Your task to perform on an android device: toggle notification dots Image 0: 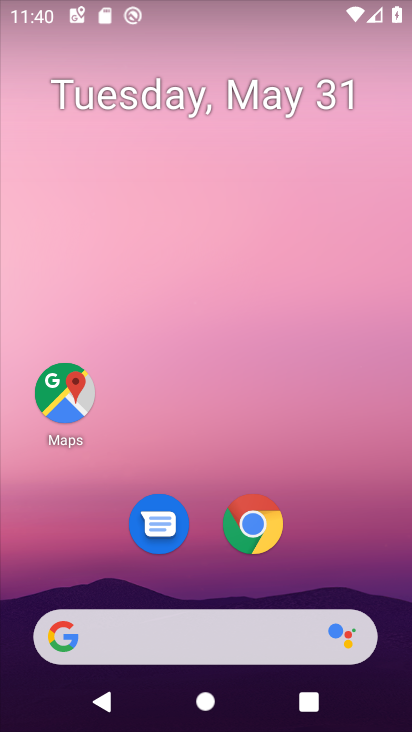
Step 0: drag from (329, 517) to (310, 36)
Your task to perform on an android device: toggle notification dots Image 1: 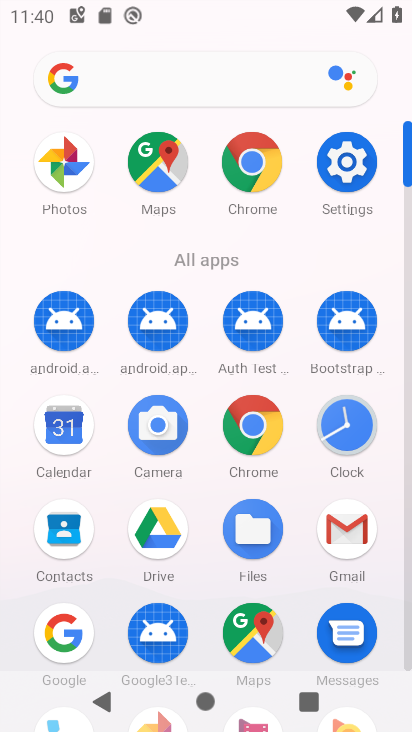
Step 1: click (346, 173)
Your task to perform on an android device: toggle notification dots Image 2: 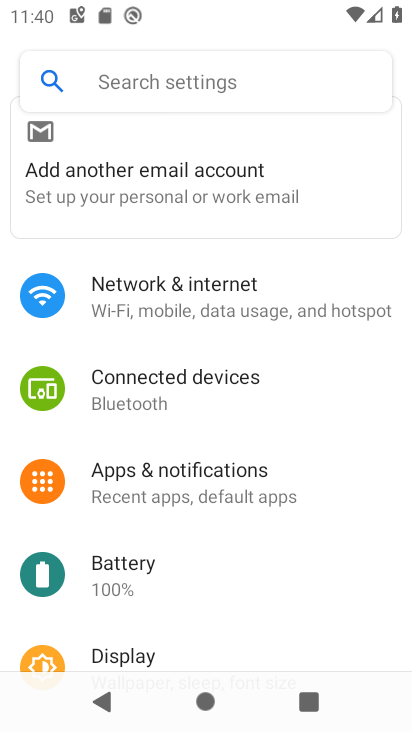
Step 2: click (220, 473)
Your task to perform on an android device: toggle notification dots Image 3: 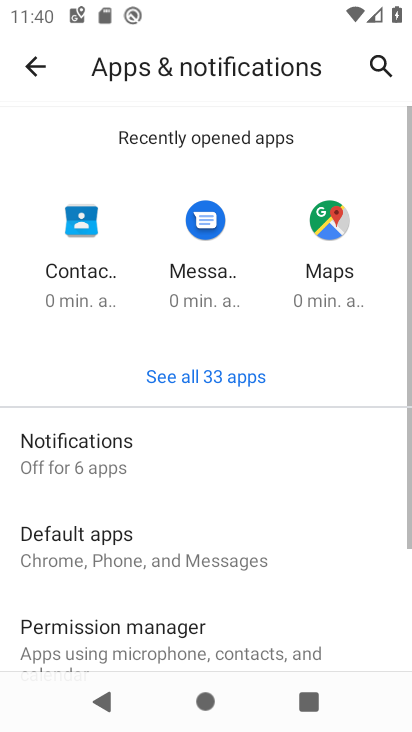
Step 3: click (220, 472)
Your task to perform on an android device: toggle notification dots Image 4: 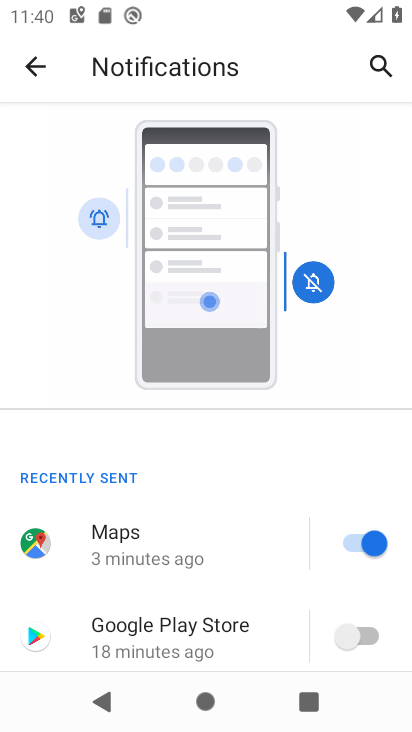
Step 4: drag from (220, 650) to (234, 67)
Your task to perform on an android device: toggle notification dots Image 5: 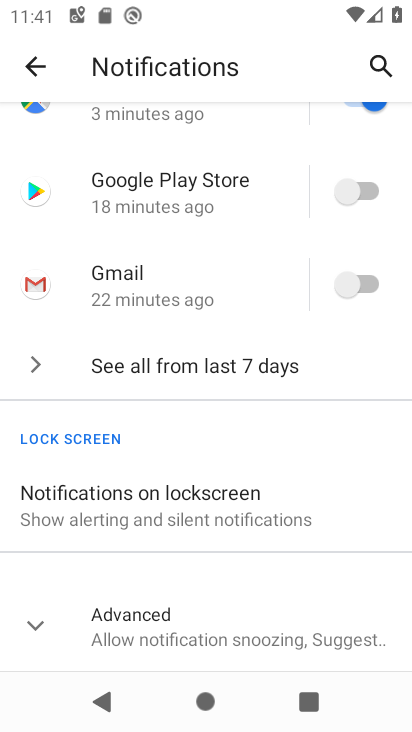
Step 5: click (34, 620)
Your task to perform on an android device: toggle notification dots Image 6: 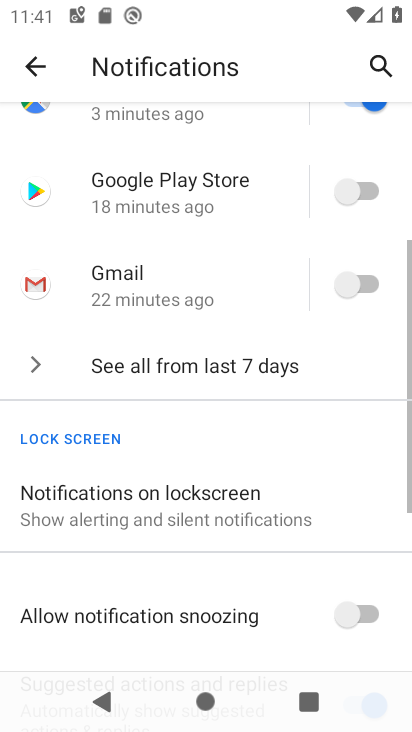
Step 6: drag from (204, 564) to (270, 90)
Your task to perform on an android device: toggle notification dots Image 7: 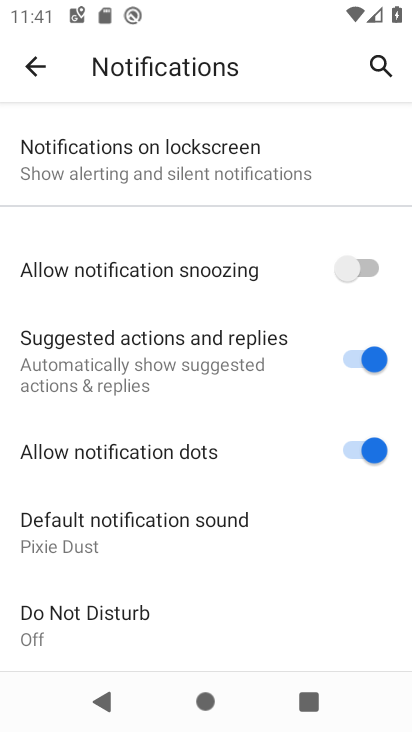
Step 7: click (366, 449)
Your task to perform on an android device: toggle notification dots Image 8: 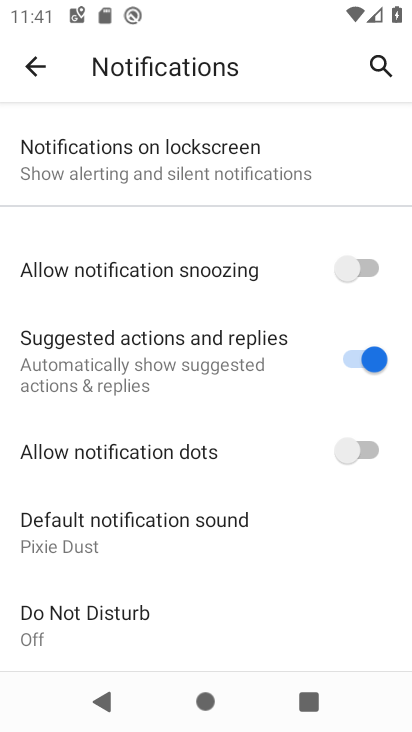
Step 8: task complete